Your task to perform on an android device: Go to accessibility settings Image 0: 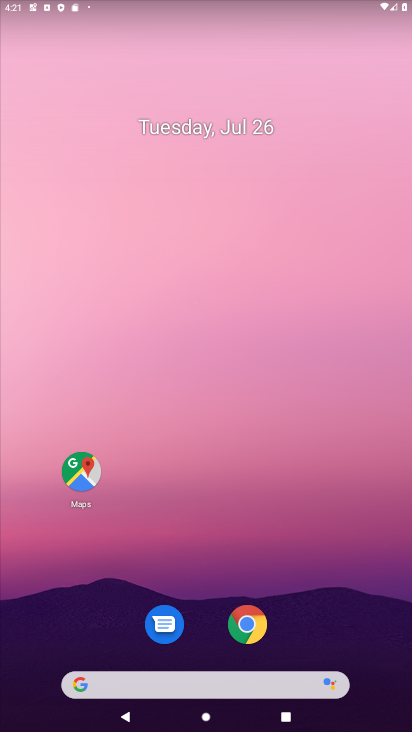
Step 0: drag from (294, 677) to (248, 1)
Your task to perform on an android device: Go to accessibility settings Image 1: 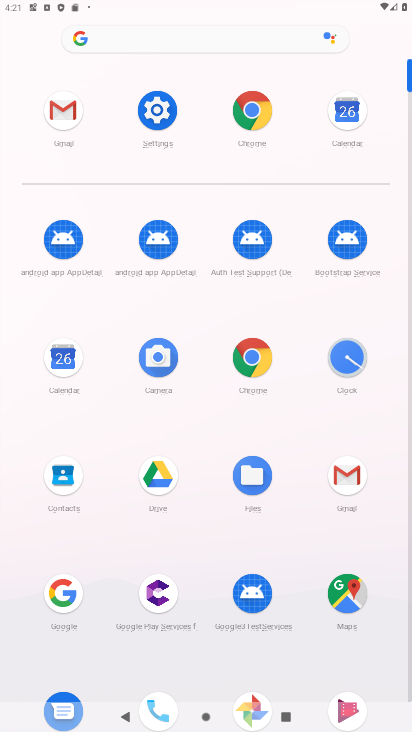
Step 1: click (164, 116)
Your task to perform on an android device: Go to accessibility settings Image 2: 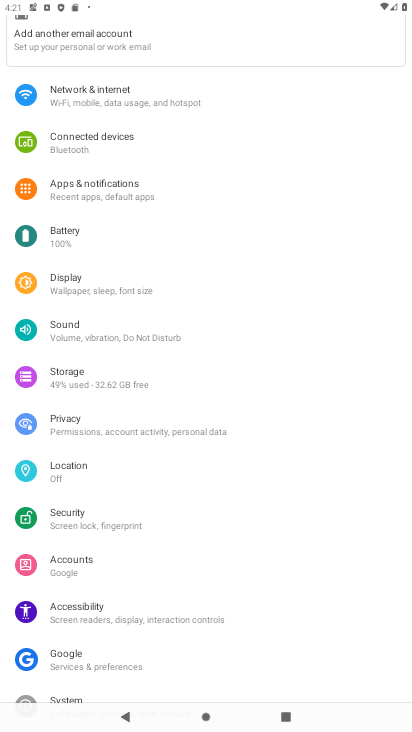
Step 2: click (93, 619)
Your task to perform on an android device: Go to accessibility settings Image 3: 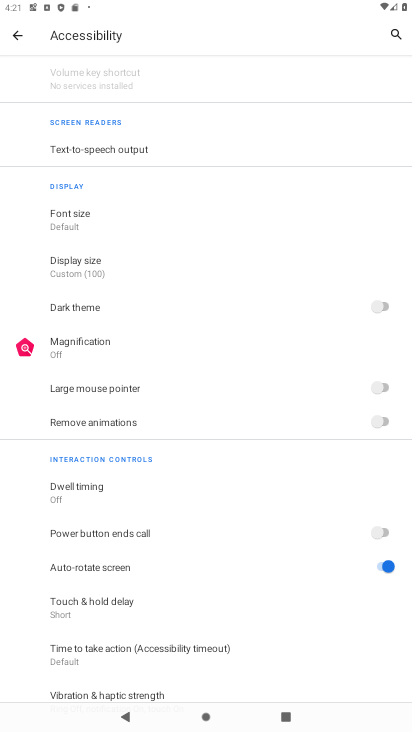
Step 3: task complete